Your task to perform on an android device: toggle location history Image 0: 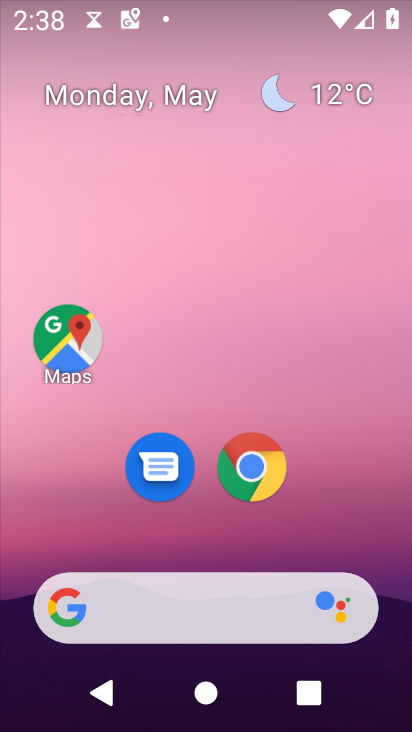
Step 0: click (52, 351)
Your task to perform on an android device: toggle location history Image 1: 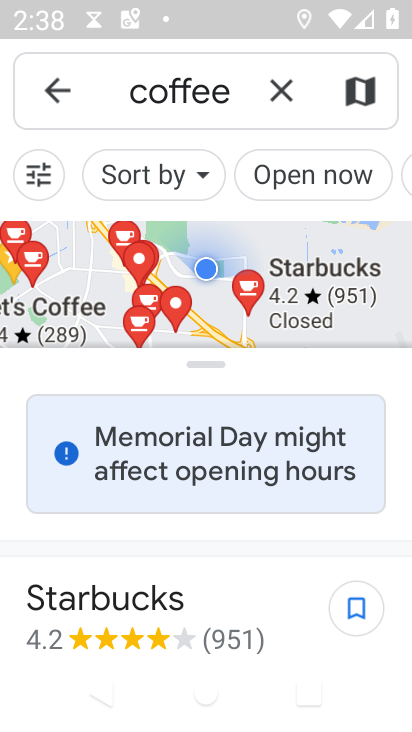
Step 1: click (52, 99)
Your task to perform on an android device: toggle location history Image 2: 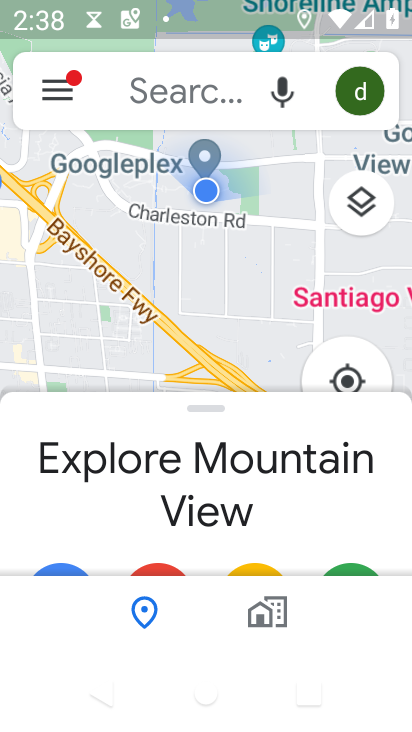
Step 2: click (52, 99)
Your task to perform on an android device: toggle location history Image 3: 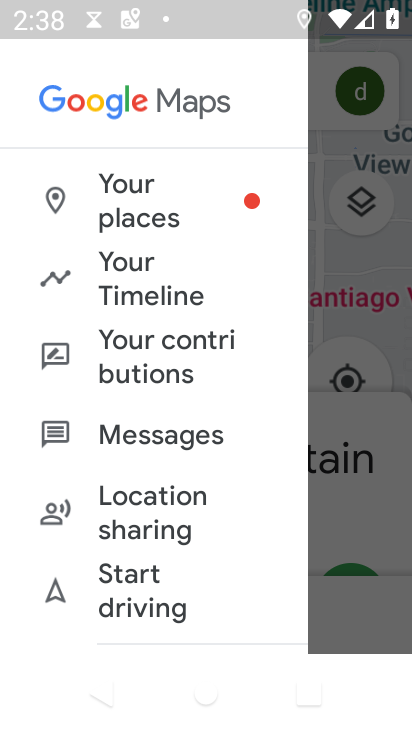
Step 3: click (142, 299)
Your task to perform on an android device: toggle location history Image 4: 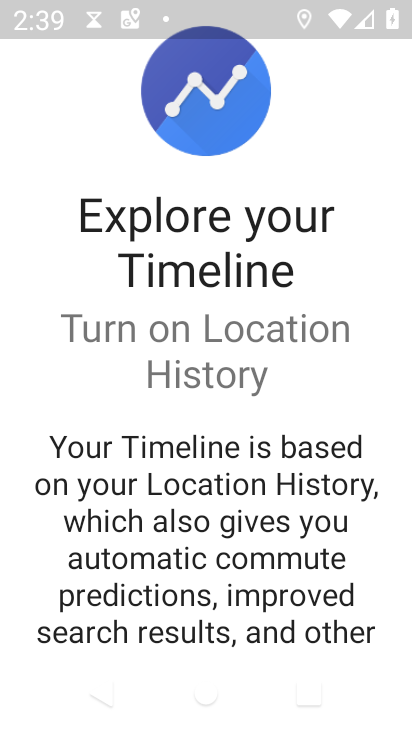
Step 4: drag from (346, 554) to (278, 65)
Your task to perform on an android device: toggle location history Image 5: 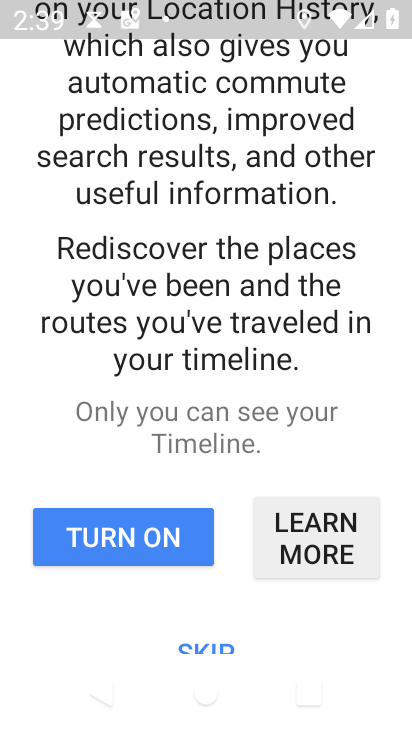
Step 5: click (164, 545)
Your task to perform on an android device: toggle location history Image 6: 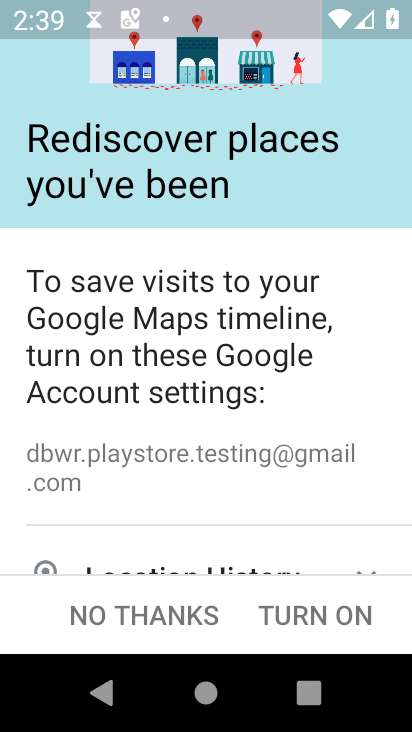
Step 6: click (338, 625)
Your task to perform on an android device: toggle location history Image 7: 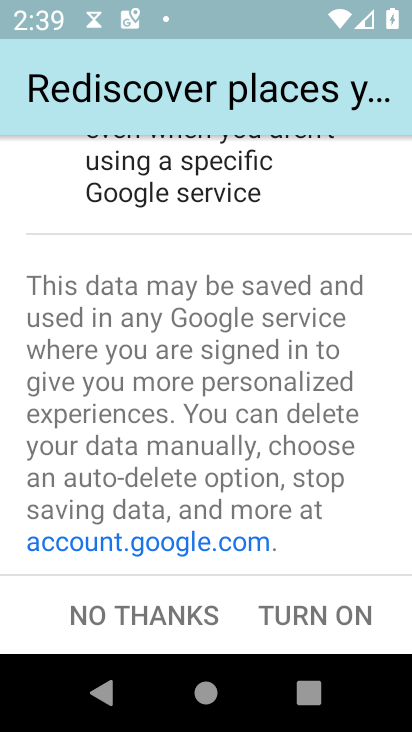
Step 7: drag from (322, 522) to (260, 166)
Your task to perform on an android device: toggle location history Image 8: 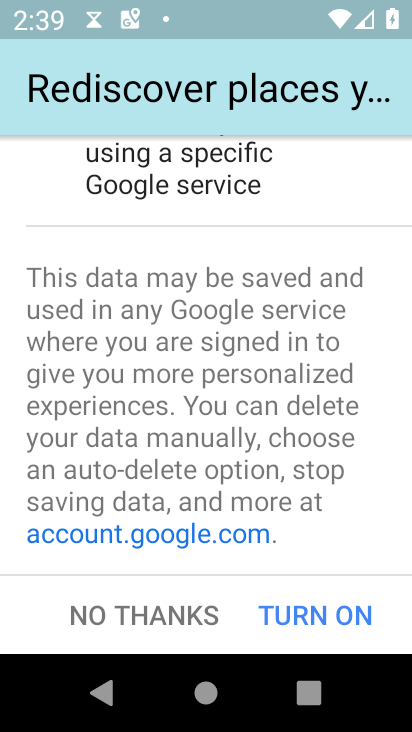
Step 8: click (346, 622)
Your task to perform on an android device: toggle location history Image 9: 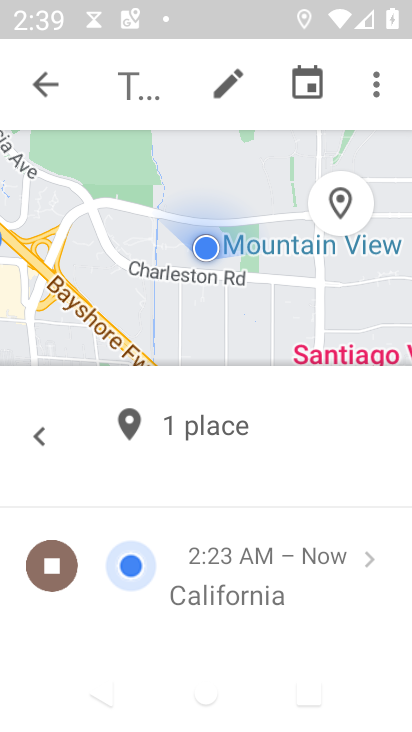
Step 9: task complete